Your task to perform on an android device: Open the calendar app, open the side menu, and click the "Day" option Image 0: 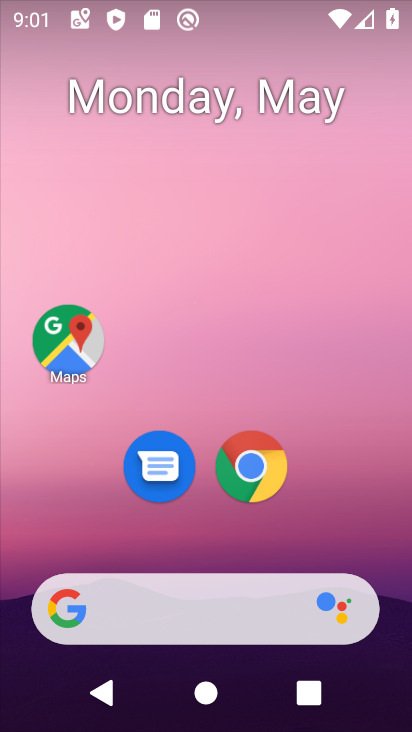
Step 0: drag from (252, 647) to (291, 3)
Your task to perform on an android device: Open the calendar app, open the side menu, and click the "Day" option Image 1: 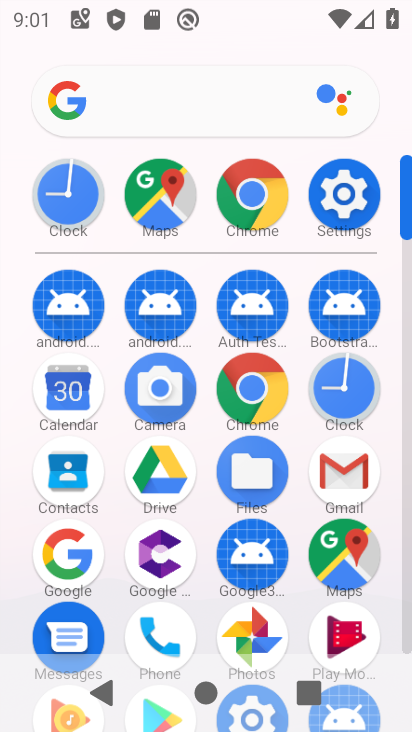
Step 1: click (71, 396)
Your task to perform on an android device: Open the calendar app, open the side menu, and click the "Day" option Image 2: 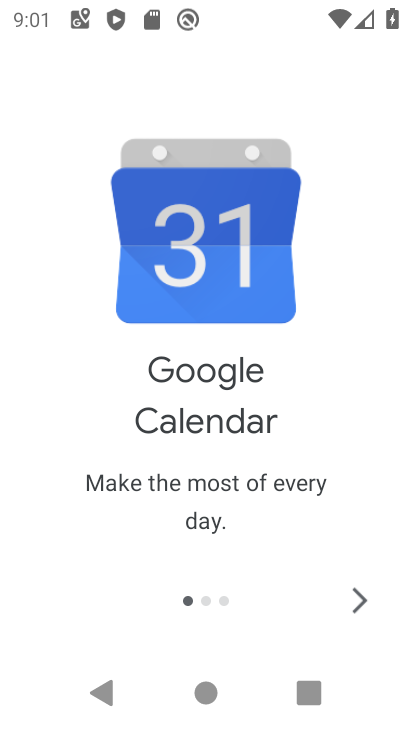
Step 2: click (354, 608)
Your task to perform on an android device: Open the calendar app, open the side menu, and click the "Day" option Image 3: 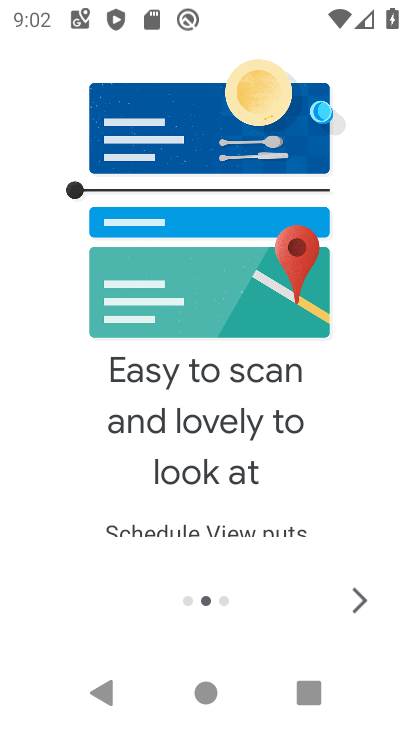
Step 3: click (359, 596)
Your task to perform on an android device: Open the calendar app, open the side menu, and click the "Day" option Image 4: 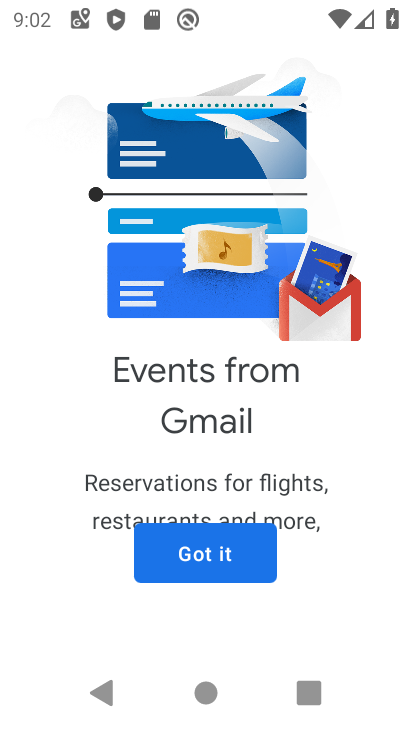
Step 4: click (214, 549)
Your task to perform on an android device: Open the calendar app, open the side menu, and click the "Day" option Image 5: 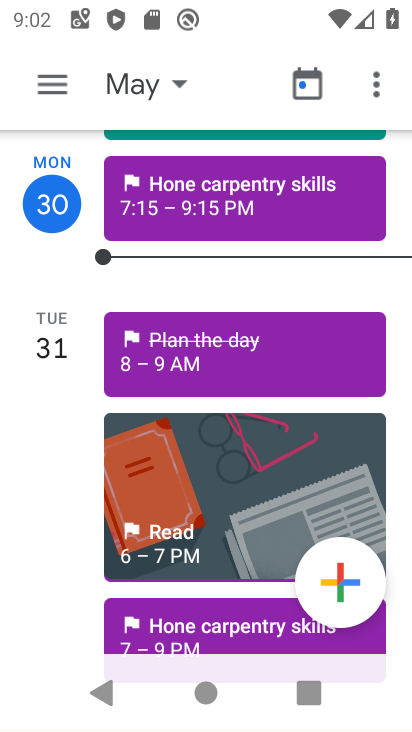
Step 5: click (50, 91)
Your task to perform on an android device: Open the calendar app, open the side menu, and click the "Day" option Image 6: 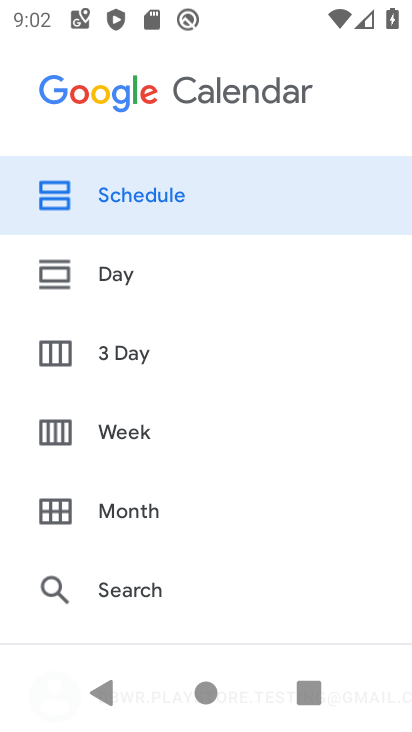
Step 6: click (114, 277)
Your task to perform on an android device: Open the calendar app, open the side menu, and click the "Day" option Image 7: 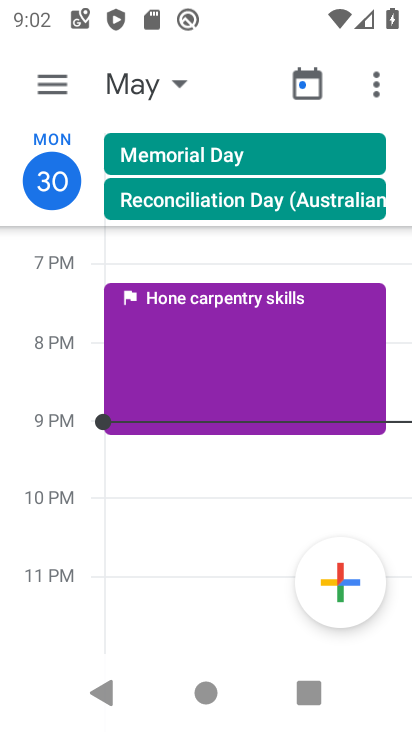
Step 7: task complete